Your task to perform on an android device: toggle show notifications on the lock screen Image 0: 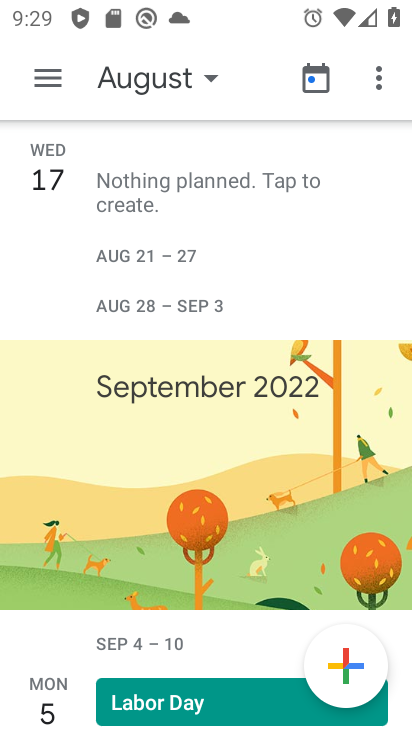
Step 0: press home button
Your task to perform on an android device: toggle show notifications on the lock screen Image 1: 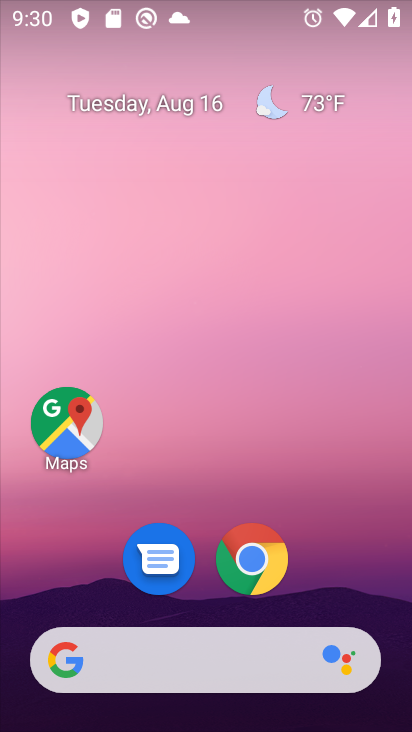
Step 1: drag from (172, 671) to (396, 81)
Your task to perform on an android device: toggle show notifications on the lock screen Image 2: 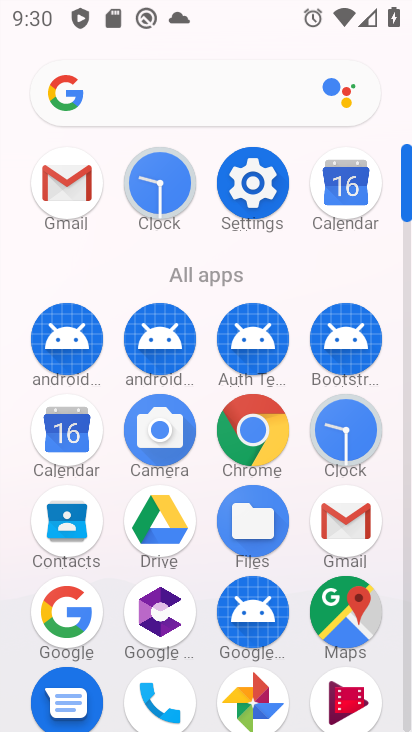
Step 2: click (253, 184)
Your task to perform on an android device: toggle show notifications on the lock screen Image 3: 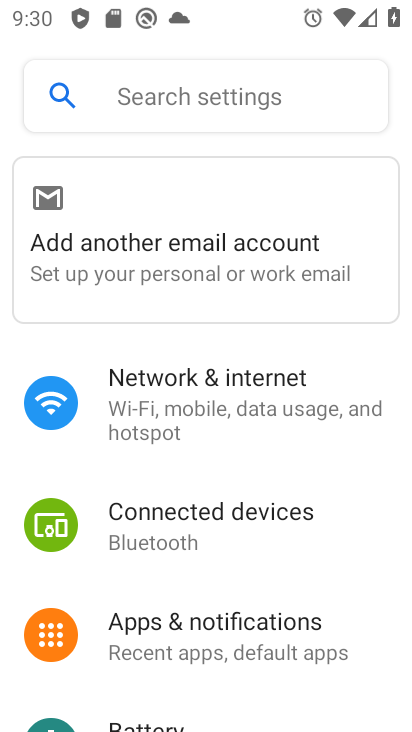
Step 3: click (202, 624)
Your task to perform on an android device: toggle show notifications on the lock screen Image 4: 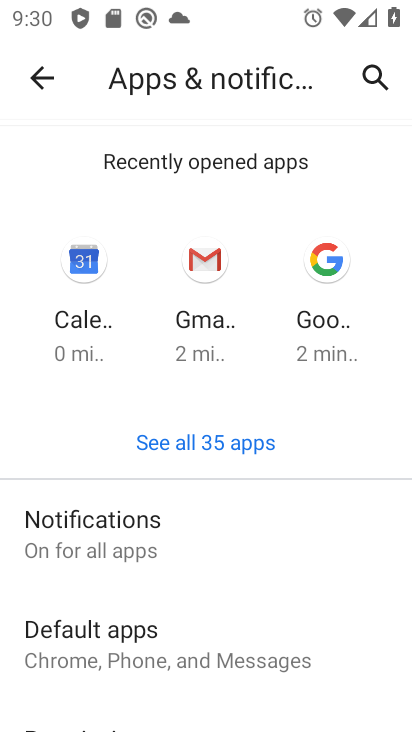
Step 4: click (117, 535)
Your task to perform on an android device: toggle show notifications on the lock screen Image 5: 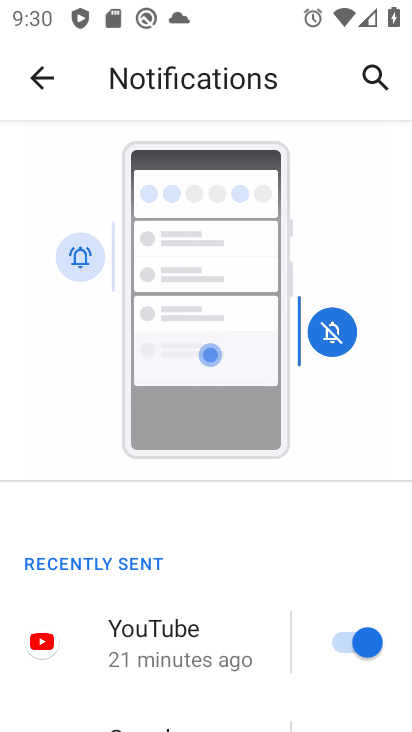
Step 5: drag from (230, 601) to (200, 397)
Your task to perform on an android device: toggle show notifications on the lock screen Image 6: 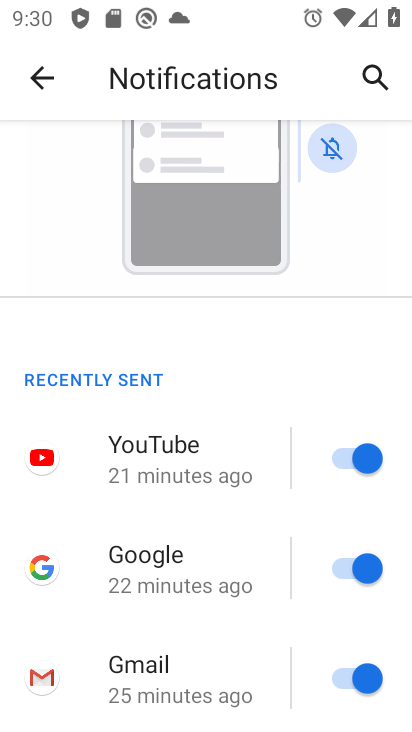
Step 6: drag from (202, 520) to (240, 395)
Your task to perform on an android device: toggle show notifications on the lock screen Image 7: 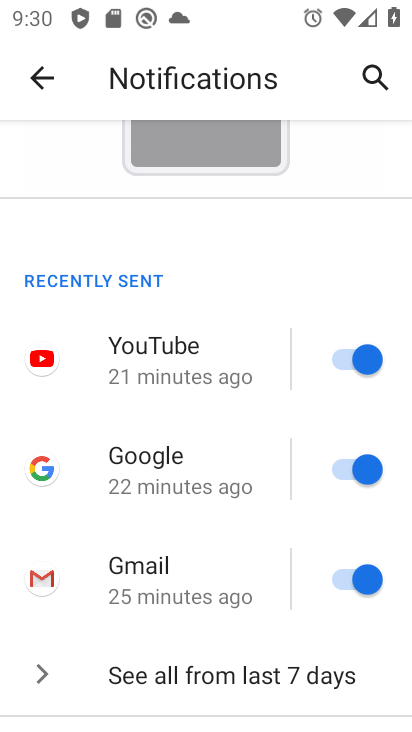
Step 7: drag from (184, 549) to (222, 428)
Your task to perform on an android device: toggle show notifications on the lock screen Image 8: 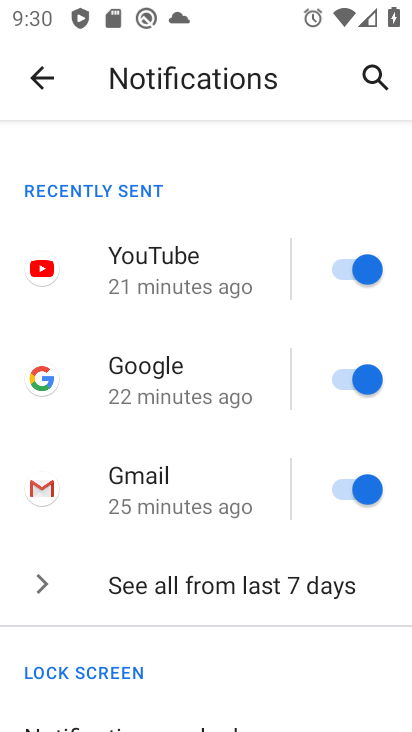
Step 8: drag from (186, 682) to (250, 532)
Your task to perform on an android device: toggle show notifications on the lock screen Image 9: 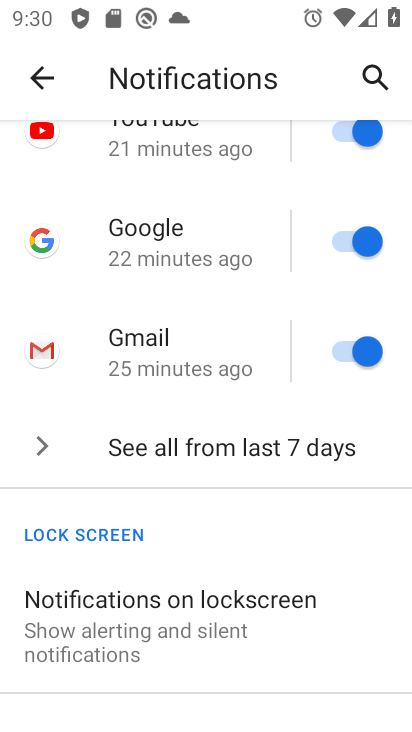
Step 9: drag from (190, 628) to (242, 543)
Your task to perform on an android device: toggle show notifications on the lock screen Image 10: 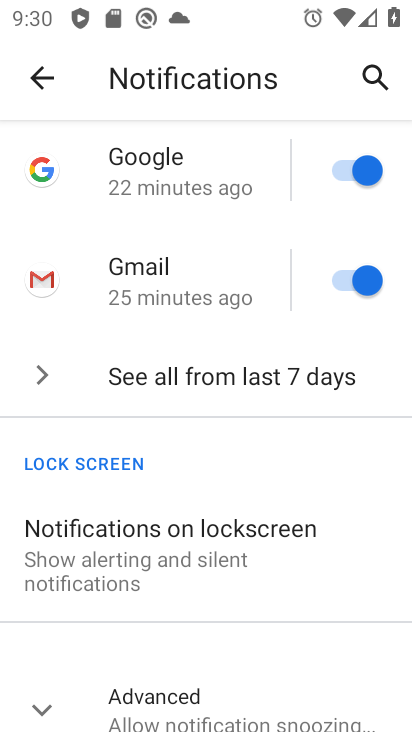
Step 10: click (242, 541)
Your task to perform on an android device: toggle show notifications on the lock screen Image 11: 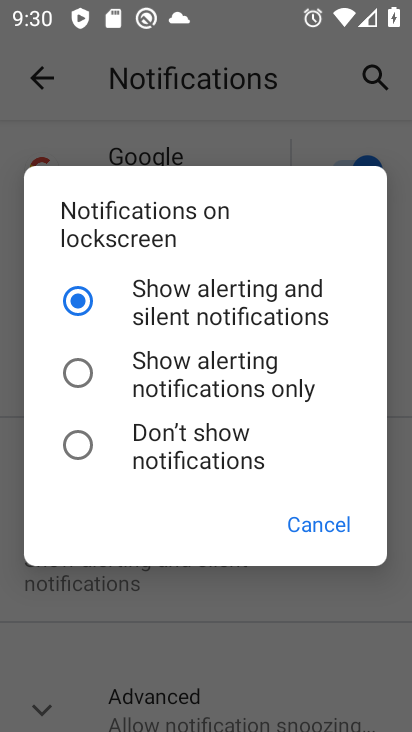
Step 11: click (79, 449)
Your task to perform on an android device: toggle show notifications on the lock screen Image 12: 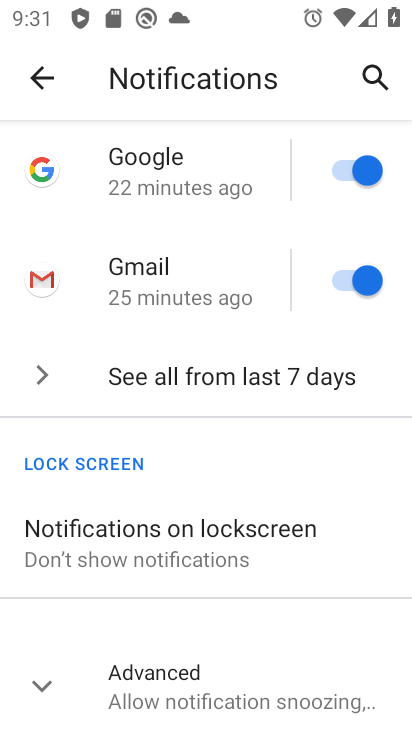
Step 12: task complete